Your task to perform on an android device: What's the weather going to be this weekend? Image 0: 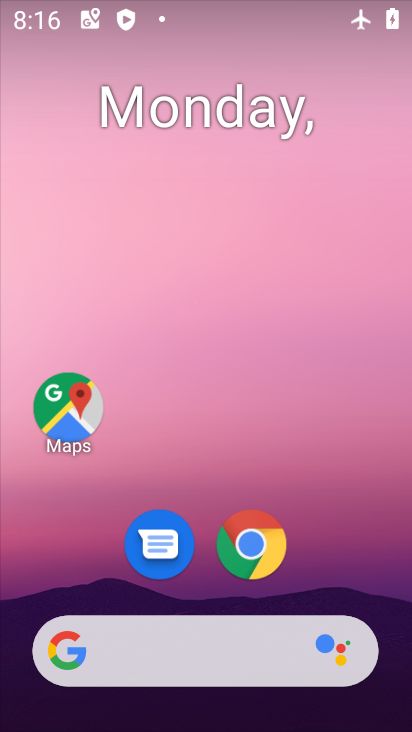
Step 0: click (170, 633)
Your task to perform on an android device: What's the weather going to be this weekend? Image 1: 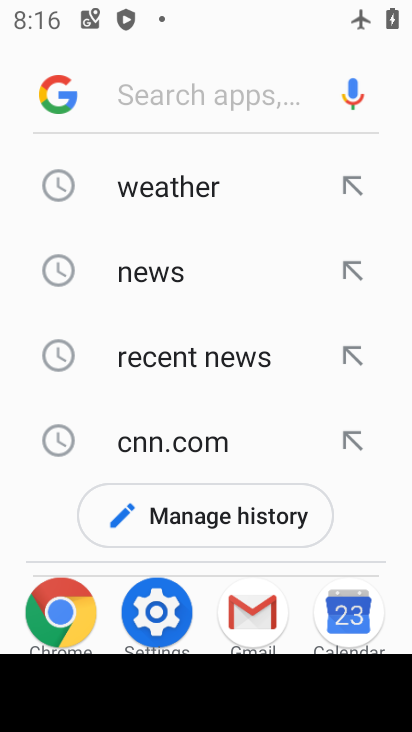
Step 1: click (147, 187)
Your task to perform on an android device: What's the weather going to be this weekend? Image 2: 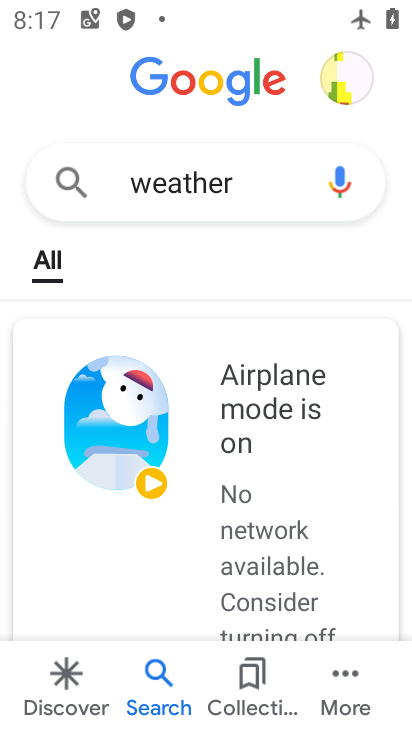
Step 2: task complete